Your task to perform on an android device: Open privacy settings Image 0: 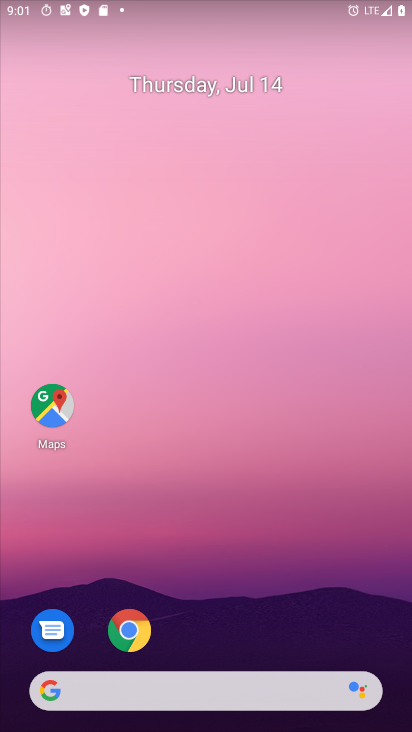
Step 0: drag from (220, 720) to (196, 122)
Your task to perform on an android device: Open privacy settings Image 1: 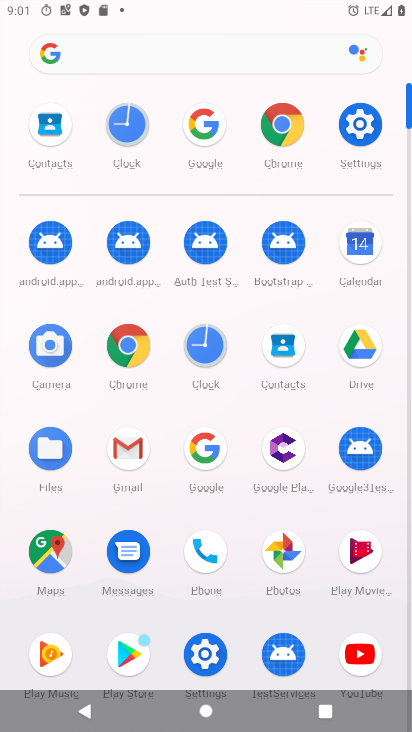
Step 1: click (364, 120)
Your task to perform on an android device: Open privacy settings Image 2: 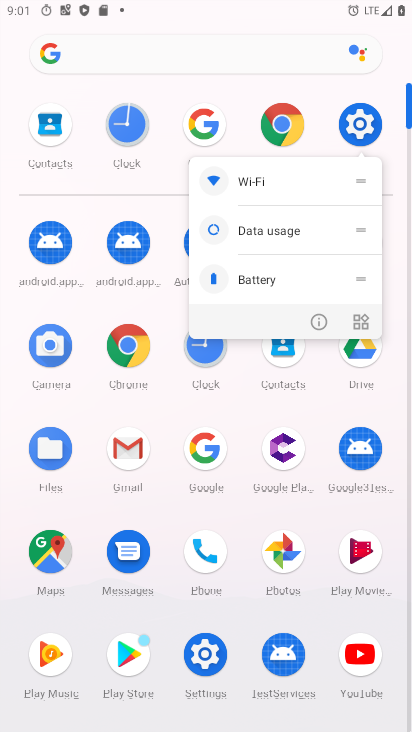
Step 2: click (362, 129)
Your task to perform on an android device: Open privacy settings Image 3: 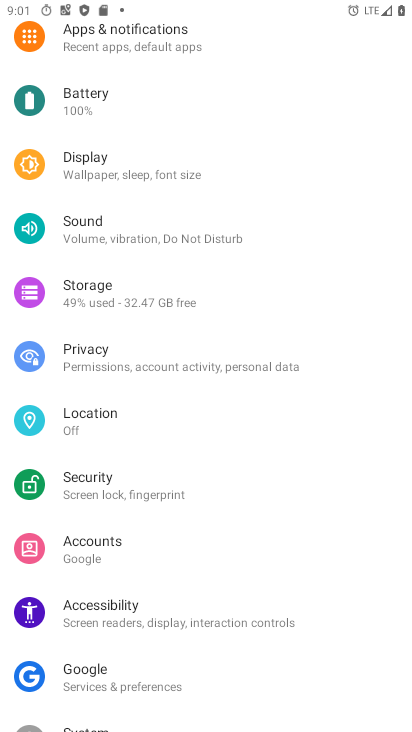
Step 3: click (81, 355)
Your task to perform on an android device: Open privacy settings Image 4: 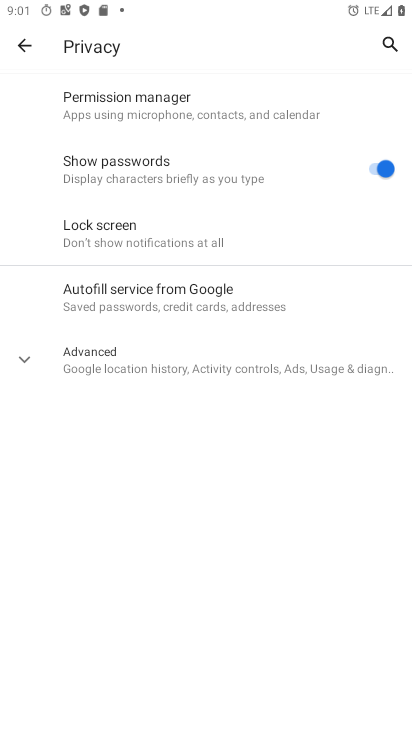
Step 4: task complete